Your task to perform on an android device: Open calendar and show me the first week of next month Image 0: 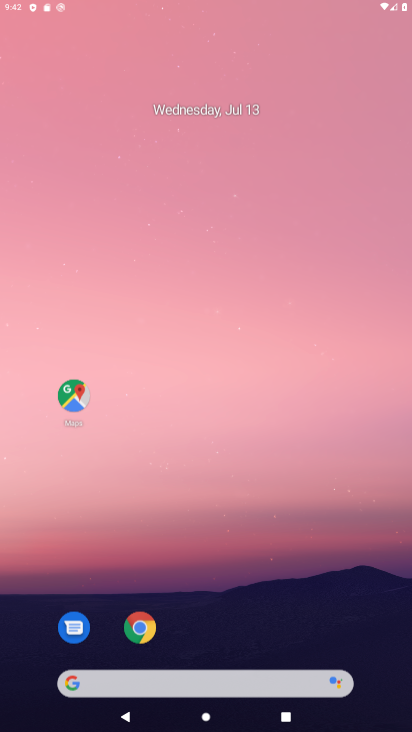
Step 0: press home button
Your task to perform on an android device: Open calendar and show me the first week of next month Image 1: 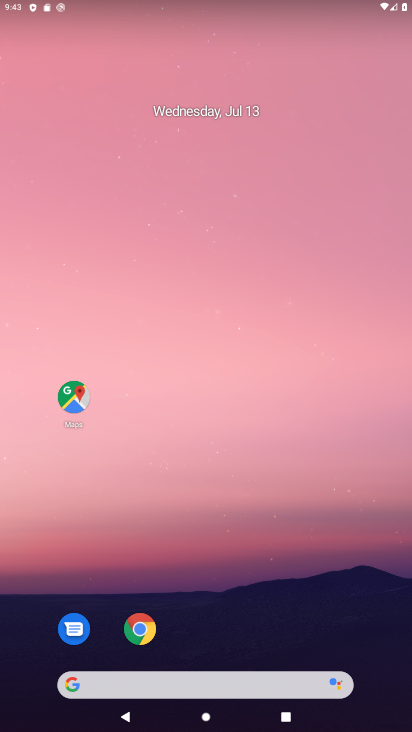
Step 1: drag from (206, 643) to (186, 40)
Your task to perform on an android device: Open calendar and show me the first week of next month Image 2: 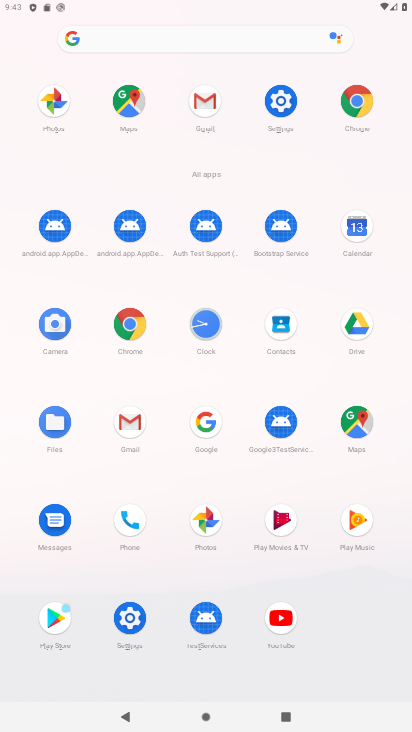
Step 2: click (353, 228)
Your task to perform on an android device: Open calendar and show me the first week of next month Image 3: 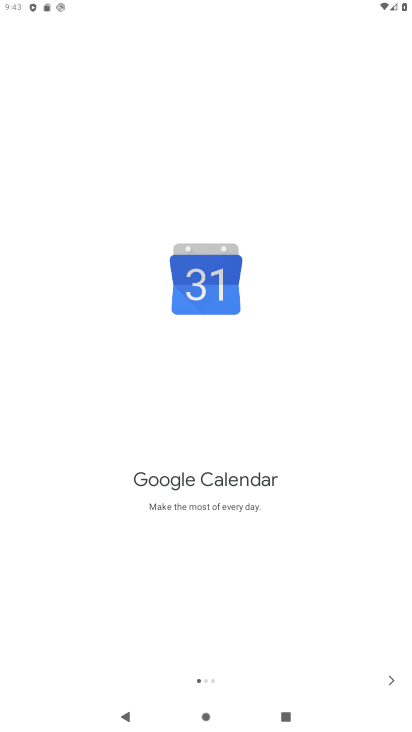
Step 3: click (393, 678)
Your task to perform on an android device: Open calendar and show me the first week of next month Image 4: 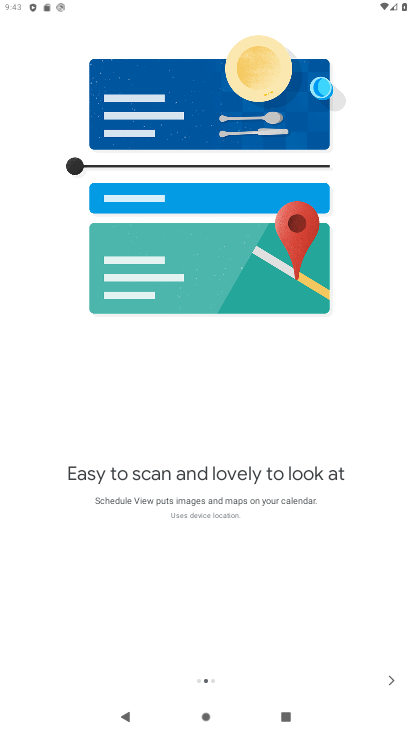
Step 4: click (391, 676)
Your task to perform on an android device: Open calendar and show me the first week of next month Image 5: 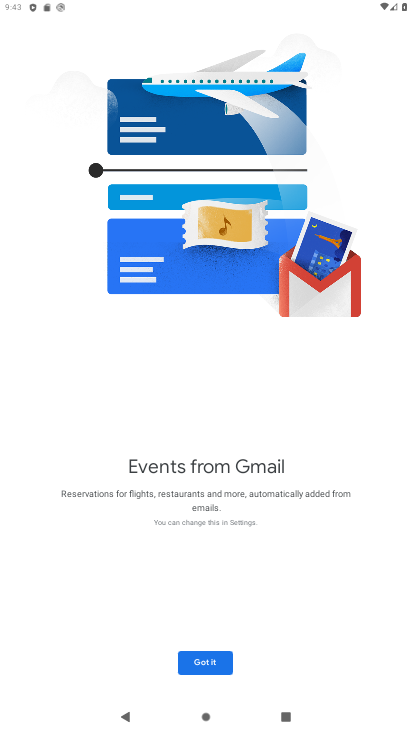
Step 5: click (202, 657)
Your task to perform on an android device: Open calendar and show me the first week of next month Image 6: 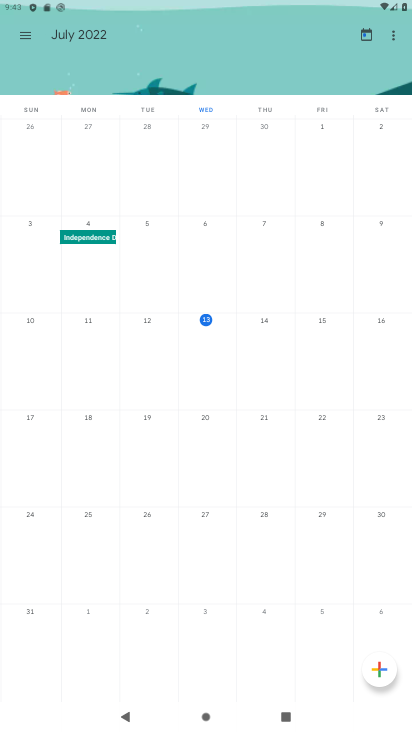
Step 6: drag from (113, 265) to (38, 254)
Your task to perform on an android device: Open calendar and show me the first week of next month Image 7: 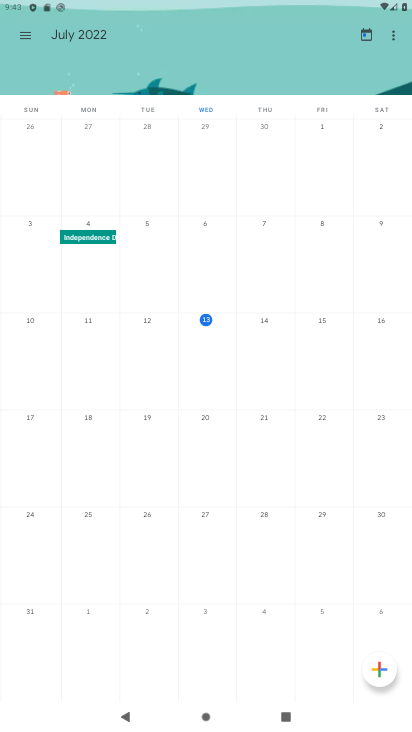
Step 7: drag from (385, 354) to (0, 324)
Your task to perform on an android device: Open calendar and show me the first week of next month Image 8: 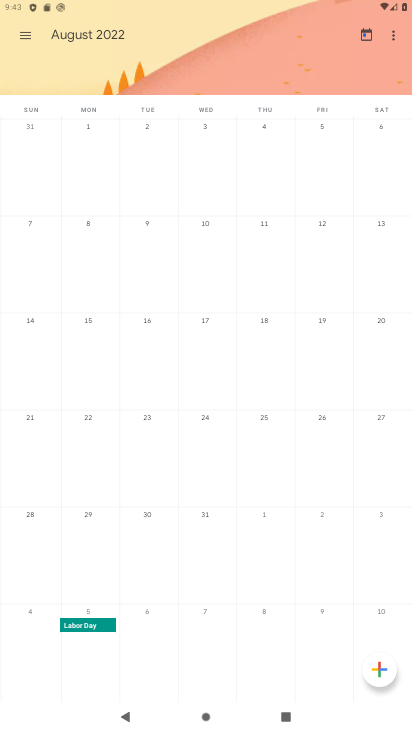
Step 8: click (80, 131)
Your task to perform on an android device: Open calendar and show me the first week of next month Image 9: 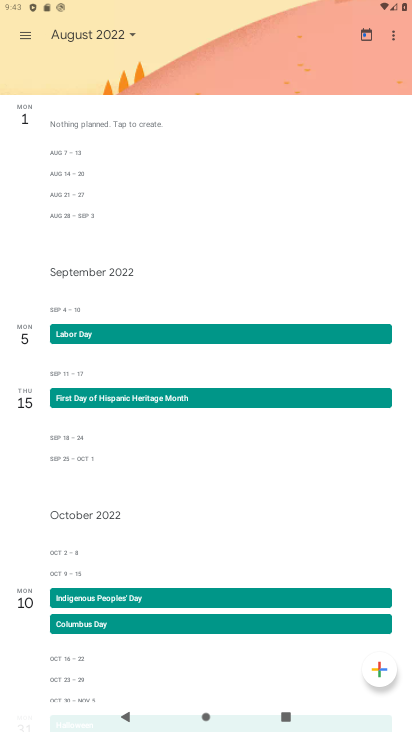
Step 9: click (22, 18)
Your task to perform on an android device: Open calendar and show me the first week of next month Image 10: 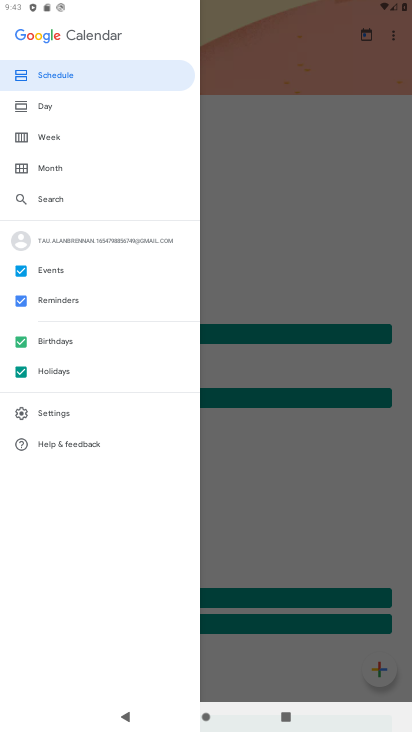
Step 10: click (54, 137)
Your task to perform on an android device: Open calendar and show me the first week of next month Image 11: 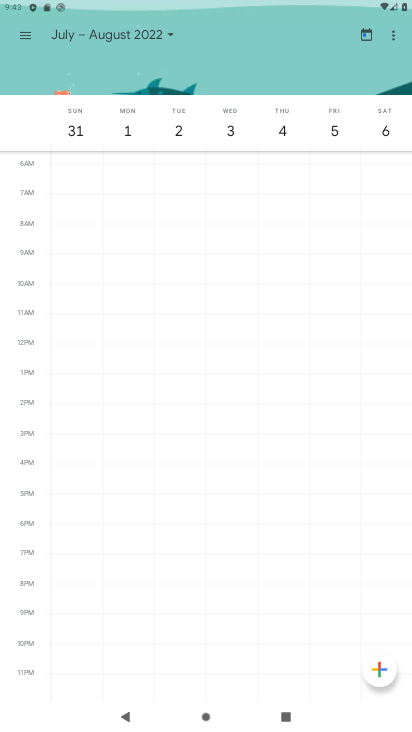
Step 11: task complete